Your task to perform on an android device: star an email in the gmail app Image 0: 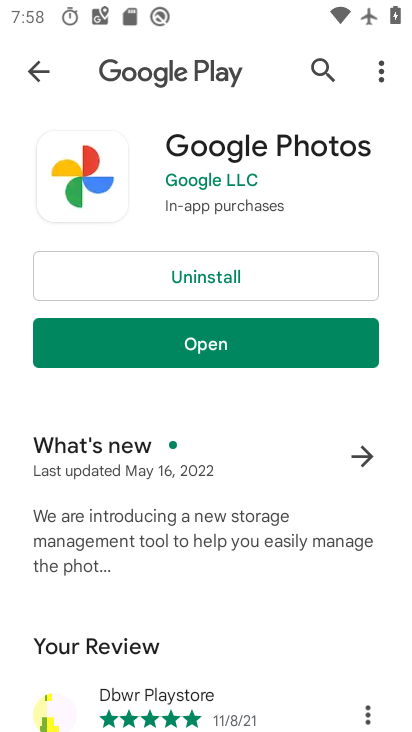
Step 0: press home button
Your task to perform on an android device: star an email in the gmail app Image 1: 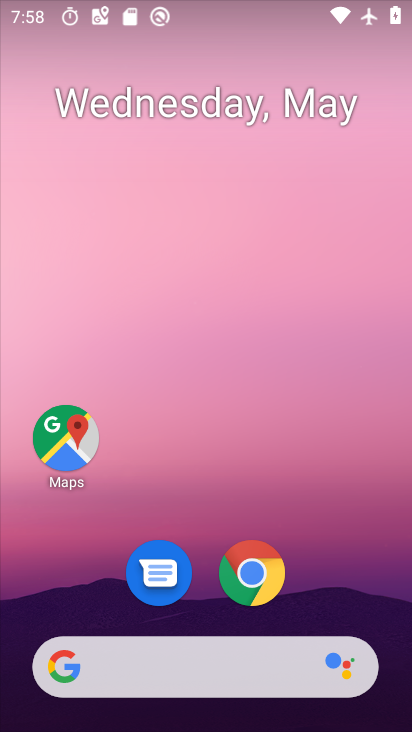
Step 1: drag from (319, 599) to (146, 32)
Your task to perform on an android device: star an email in the gmail app Image 2: 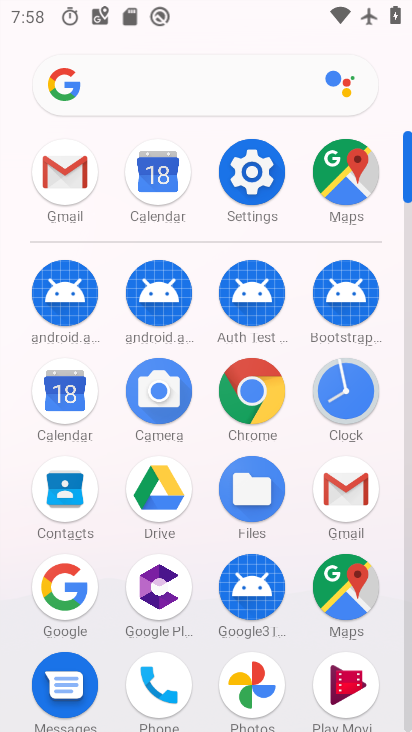
Step 2: click (88, 179)
Your task to perform on an android device: star an email in the gmail app Image 3: 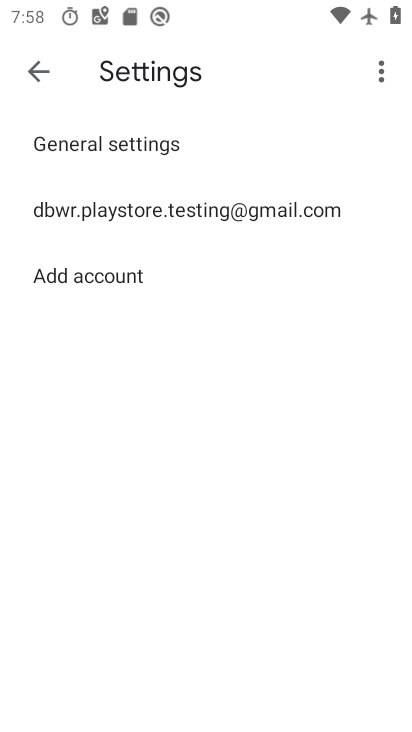
Step 3: click (31, 54)
Your task to perform on an android device: star an email in the gmail app Image 4: 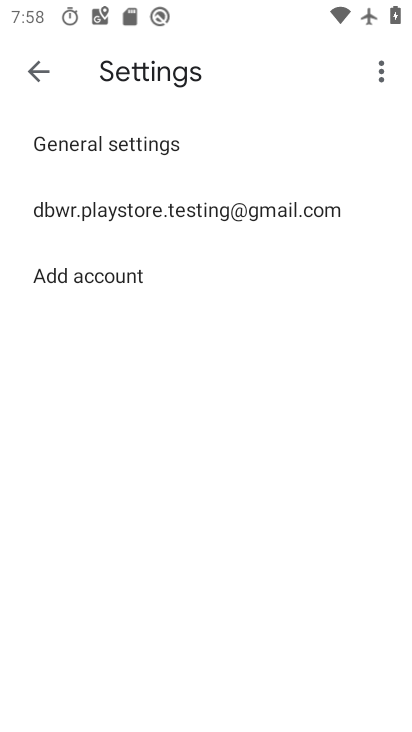
Step 4: press back button
Your task to perform on an android device: star an email in the gmail app Image 5: 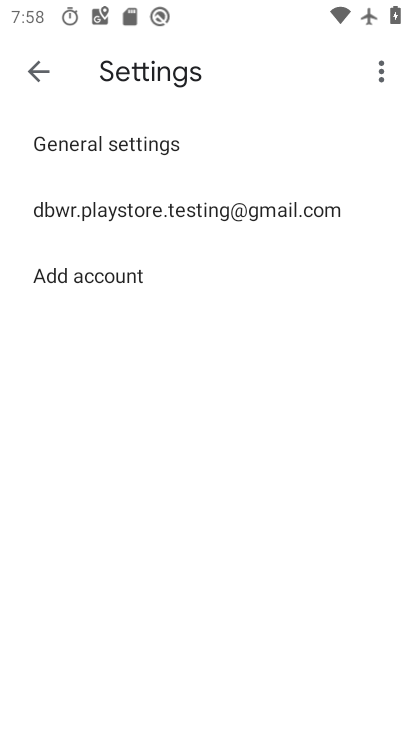
Step 5: press back button
Your task to perform on an android device: star an email in the gmail app Image 6: 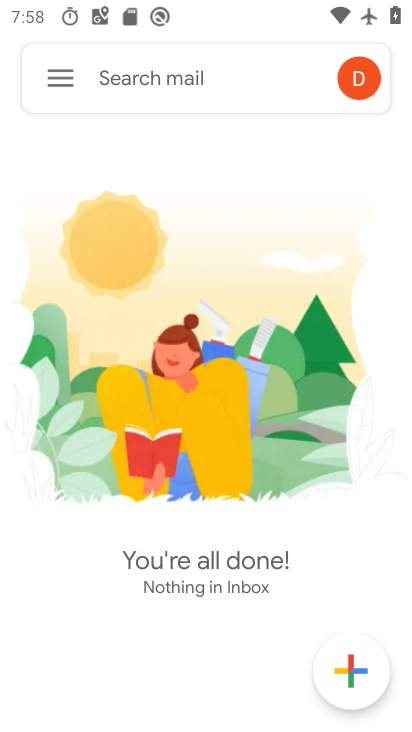
Step 6: click (58, 85)
Your task to perform on an android device: star an email in the gmail app Image 7: 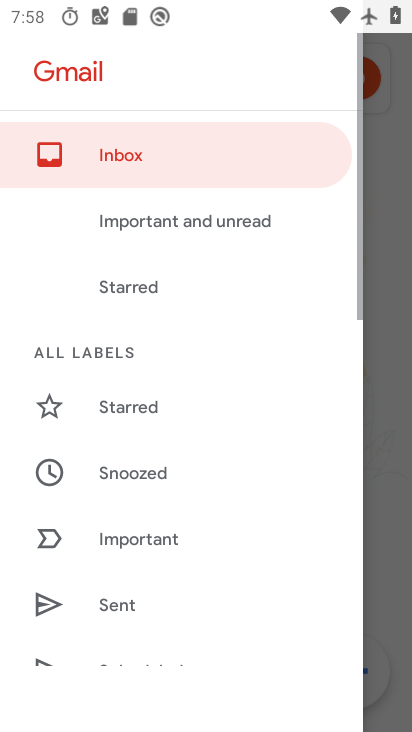
Step 7: drag from (179, 570) to (70, 65)
Your task to perform on an android device: star an email in the gmail app Image 8: 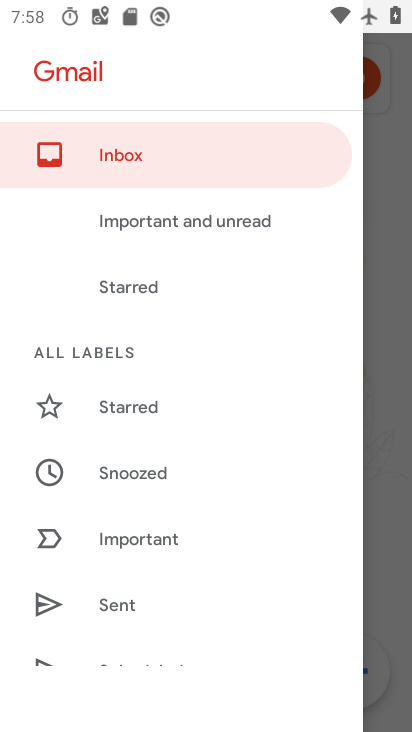
Step 8: drag from (172, 557) to (176, 100)
Your task to perform on an android device: star an email in the gmail app Image 9: 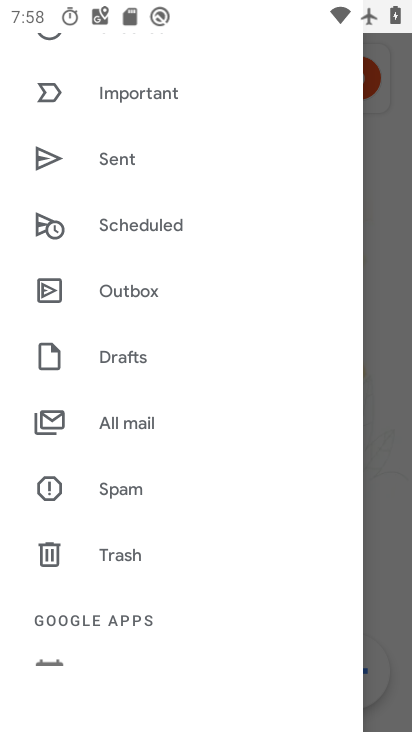
Step 9: click (154, 429)
Your task to perform on an android device: star an email in the gmail app Image 10: 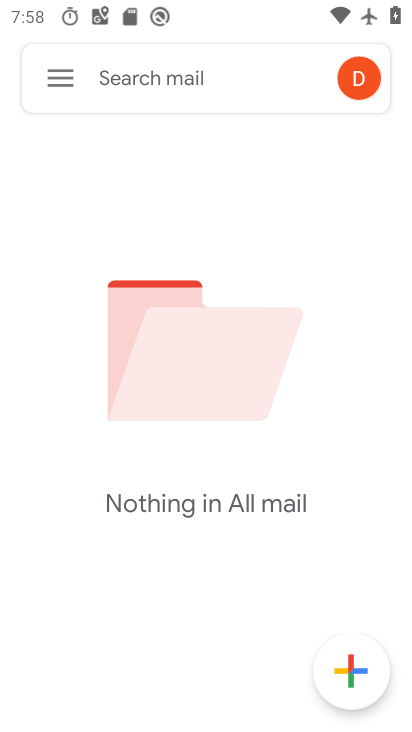
Step 10: task complete